Your task to perform on an android device: change notifications settings Image 0: 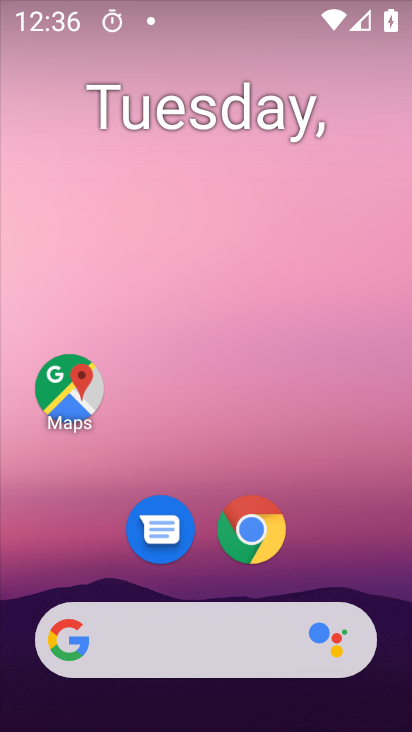
Step 0: click (260, 130)
Your task to perform on an android device: change notifications settings Image 1: 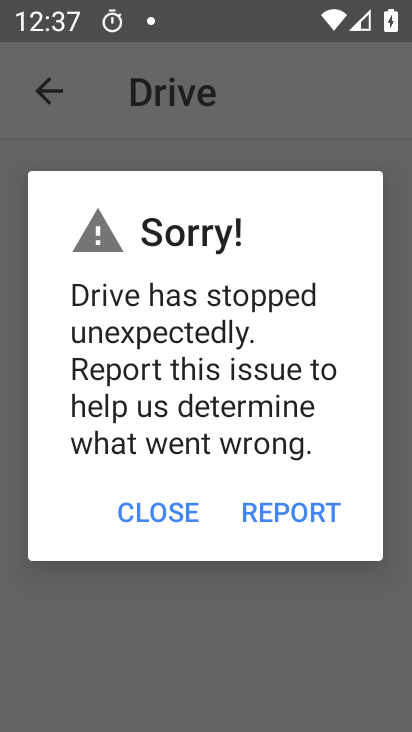
Step 1: press home button
Your task to perform on an android device: change notifications settings Image 2: 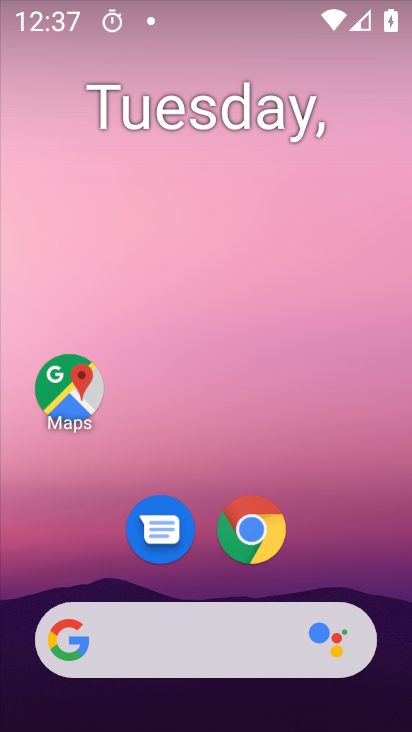
Step 2: drag from (366, 518) to (353, 153)
Your task to perform on an android device: change notifications settings Image 3: 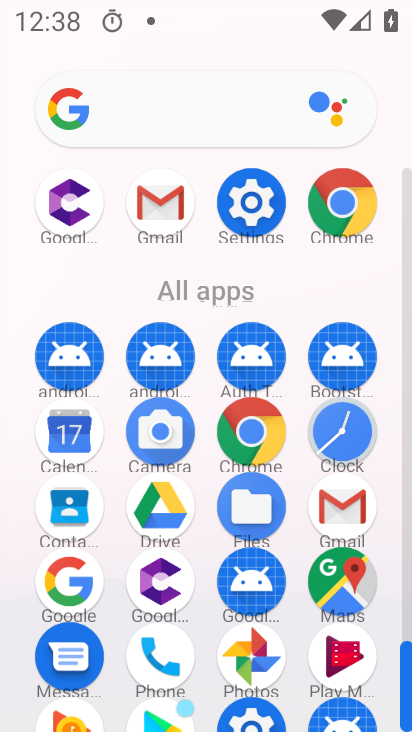
Step 3: click (259, 179)
Your task to perform on an android device: change notifications settings Image 4: 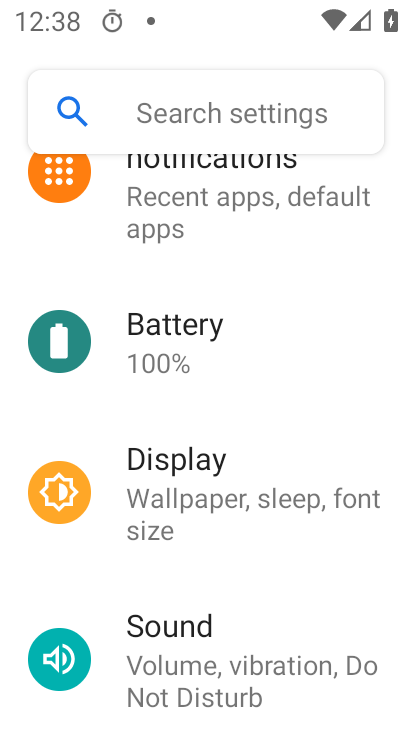
Step 4: drag from (250, 188) to (284, 582)
Your task to perform on an android device: change notifications settings Image 5: 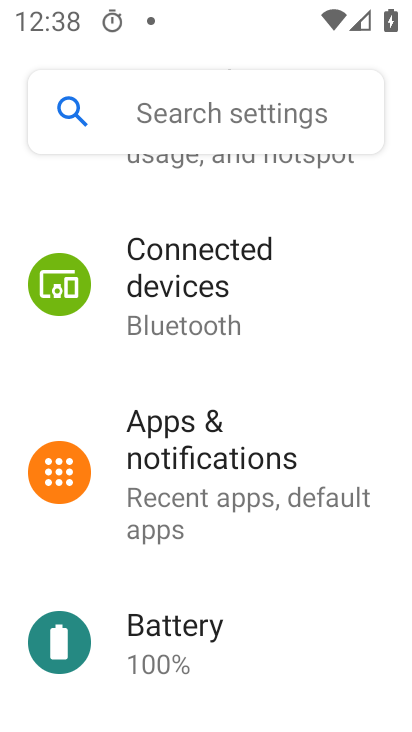
Step 5: drag from (268, 284) to (265, 598)
Your task to perform on an android device: change notifications settings Image 6: 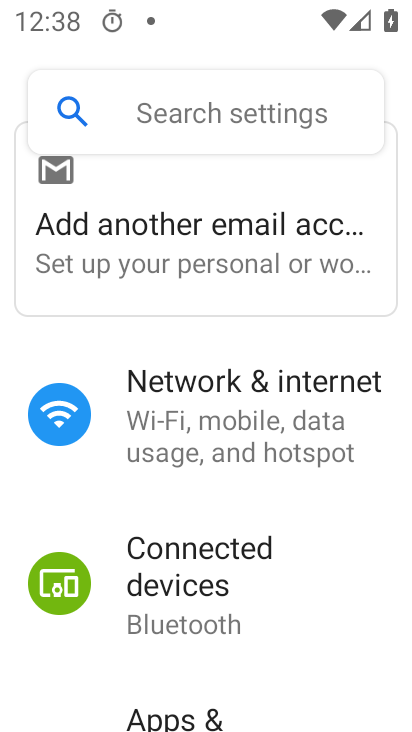
Step 6: drag from (265, 586) to (277, 211)
Your task to perform on an android device: change notifications settings Image 7: 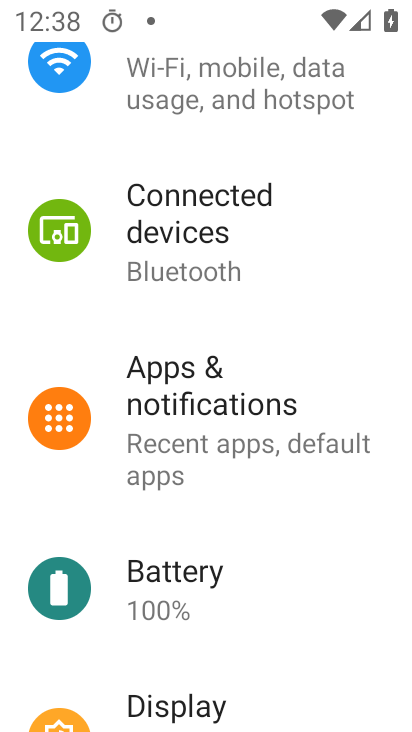
Step 7: click (199, 395)
Your task to perform on an android device: change notifications settings Image 8: 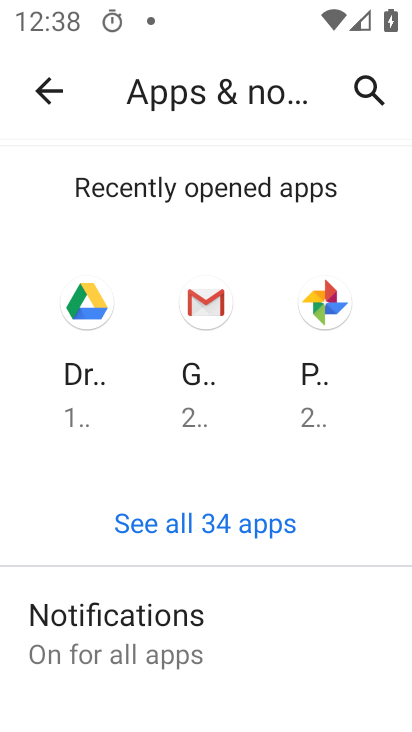
Step 8: click (155, 612)
Your task to perform on an android device: change notifications settings Image 9: 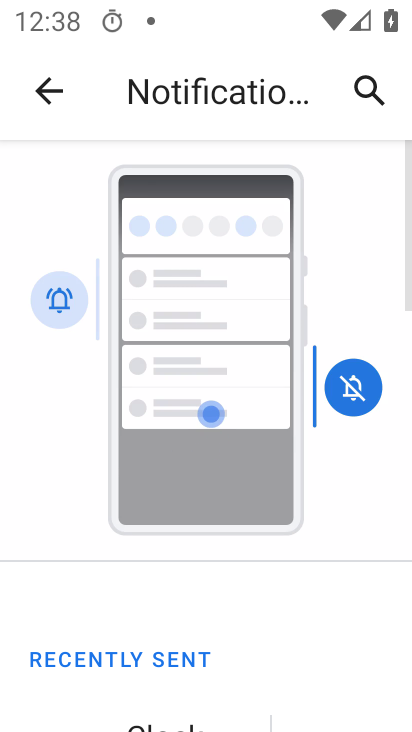
Step 9: drag from (155, 612) to (160, 28)
Your task to perform on an android device: change notifications settings Image 10: 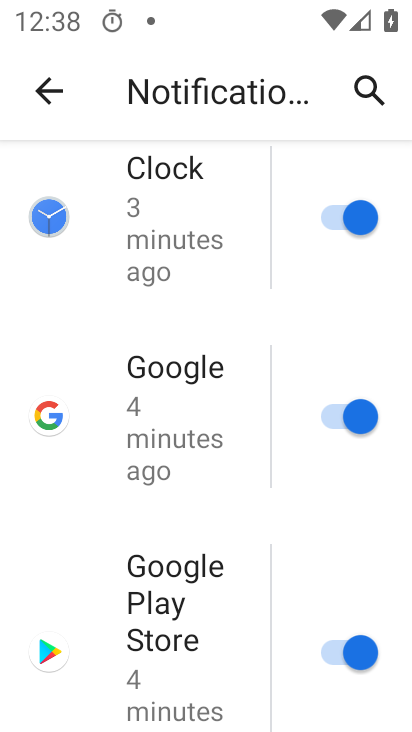
Step 10: click (337, 643)
Your task to perform on an android device: change notifications settings Image 11: 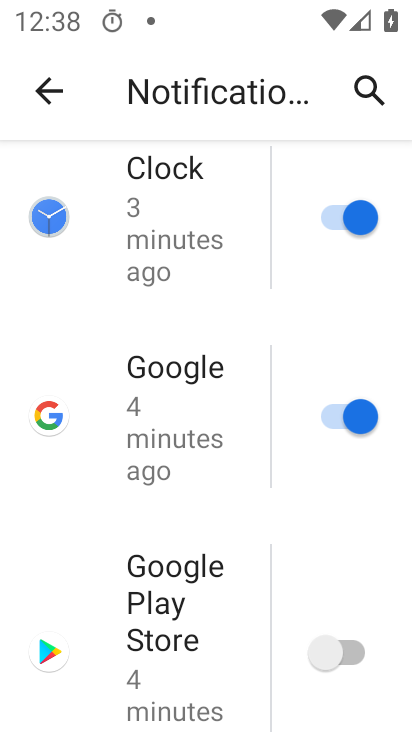
Step 11: task complete